Your task to perform on an android device: snooze an email in the gmail app Image 0: 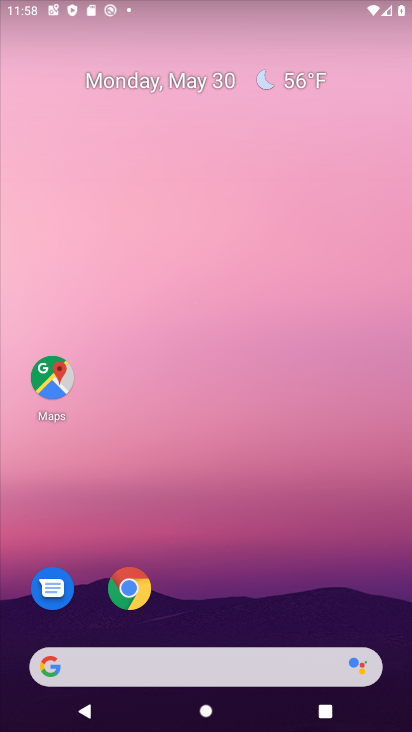
Step 0: press home button
Your task to perform on an android device: snooze an email in the gmail app Image 1: 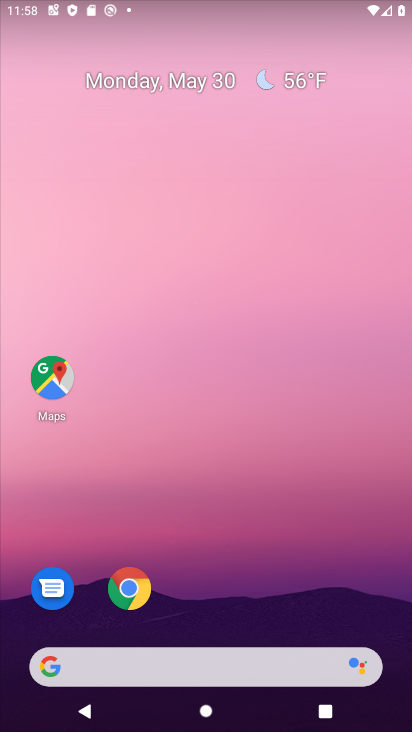
Step 1: drag from (192, 616) to (226, 232)
Your task to perform on an android device: snooze an email in the gmail app Image 2: 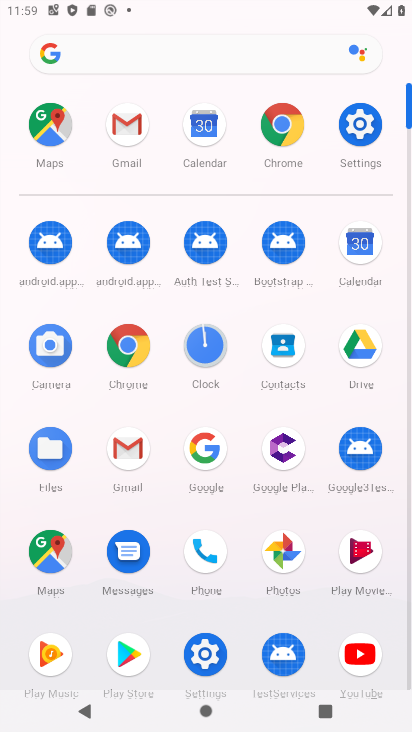
Step 2: click (134, 478)
Your task to perform on an android device: snooze an email in the gmail app Image 3: 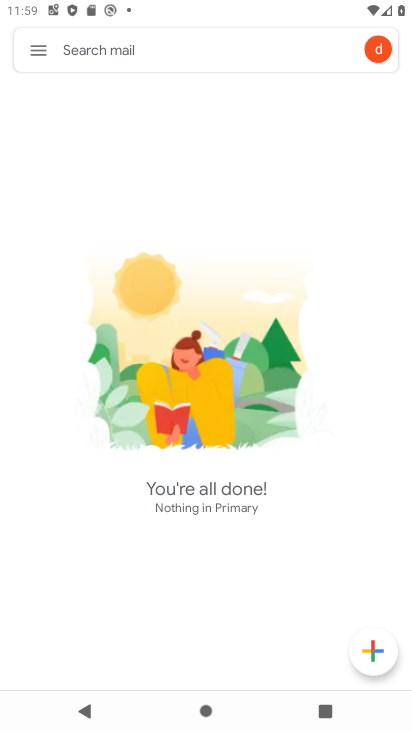
Step 3: click (40, 56)
Your task to perform on an android device: snooze an email in the gmail app Image 4: 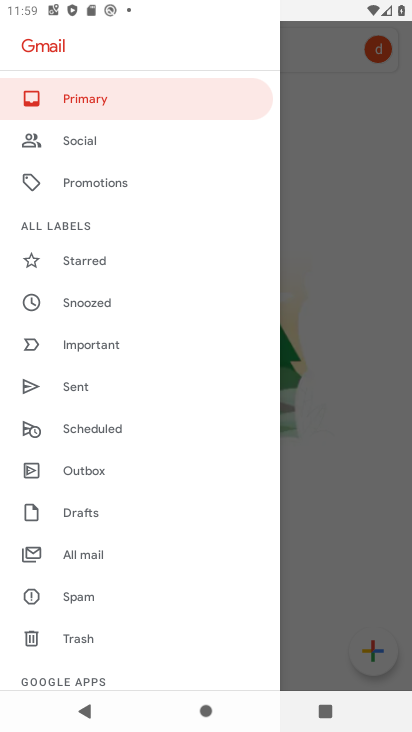
Step 4: click (82, 555)
Your task to perform on an android device: snooze an email in the gmail app Image 5: 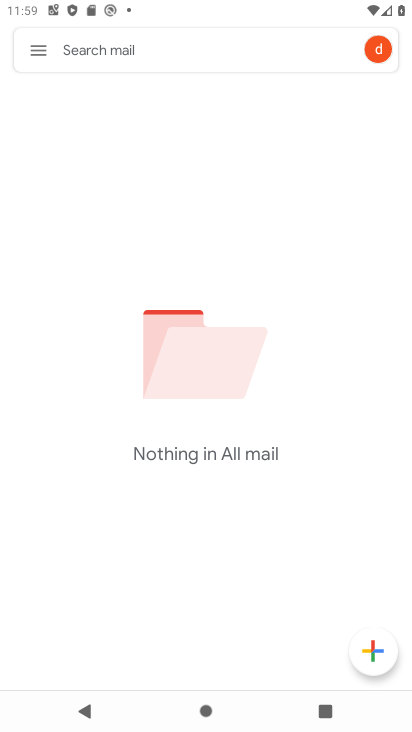
Step 5: task complete